Your task to perform on an android device: Open calendar and show me the fourth week of next month Image 0: 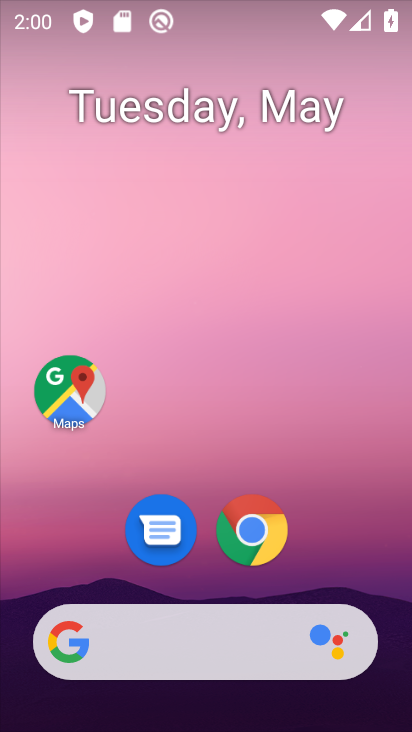
Step 0: drag from (17, 627) to (205, 240)
Your task to perform on an android device: Open calendar and show me the fourth week of next month Image 1: 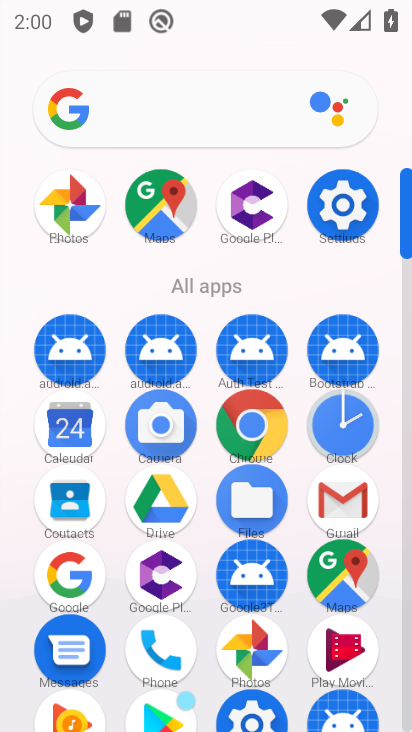
Step 1: click (83, 435)
Your task to perform on an android device: Open calendar and show me the fourth week of next month Image 2: 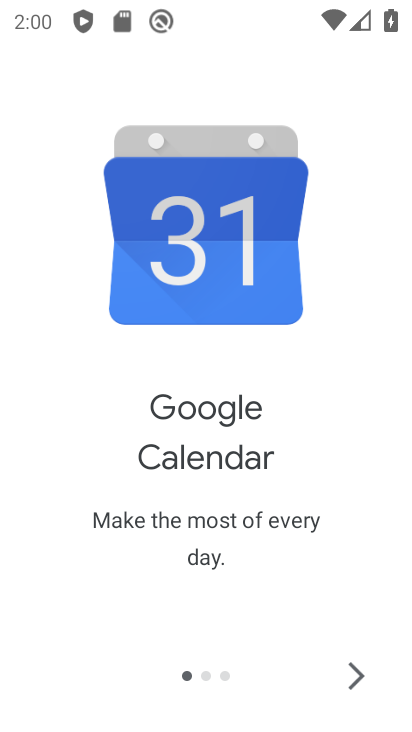
Step 2: click (361, 677)
Your task to perform on an android device: Open calendar and show me the fourth week of next month Image 3: 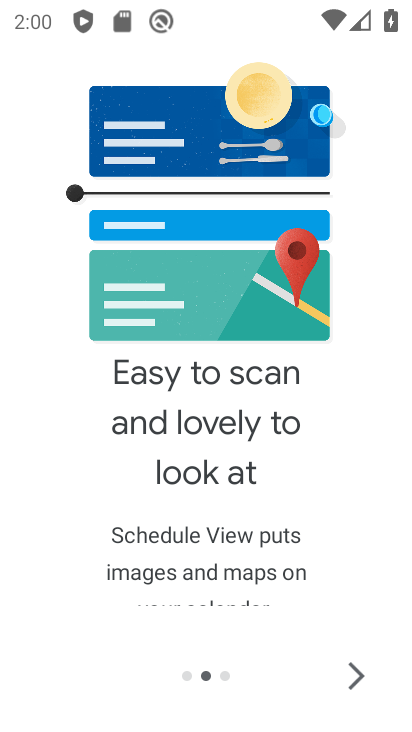
Step 3: click (361, 677)
Your task to perform on an android device: Open calendar and show me the fourth week of next month Image 4: 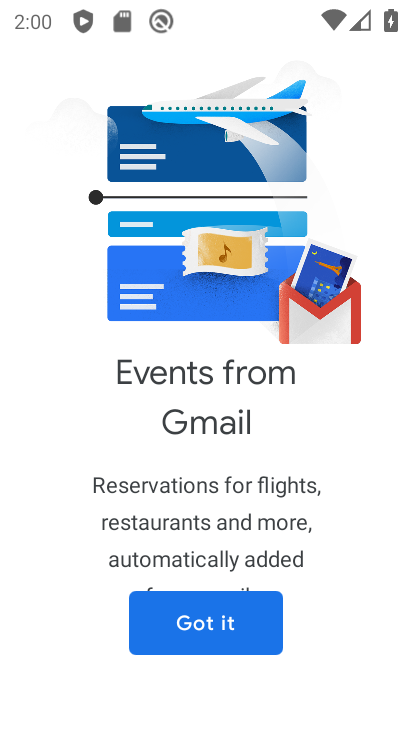
Step 4: click (231, 631)
Your task to perform on an android device: Open calendar and show me the fourth week of next month Image 5: 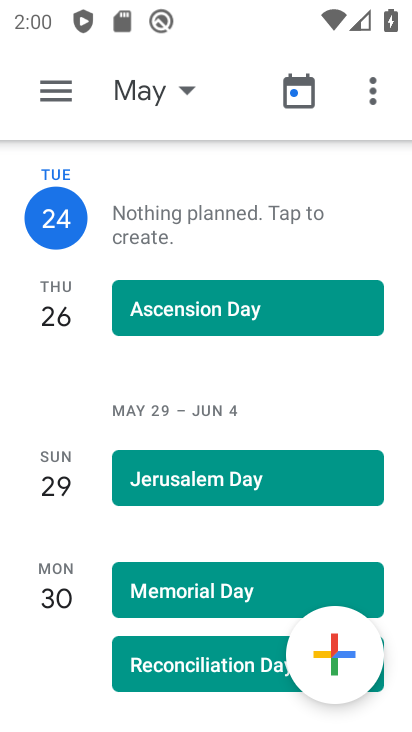
Step 5: click (176, 92)
Your task to perform on an android device: Open calendar and show me the fourth week of next month Image 6: 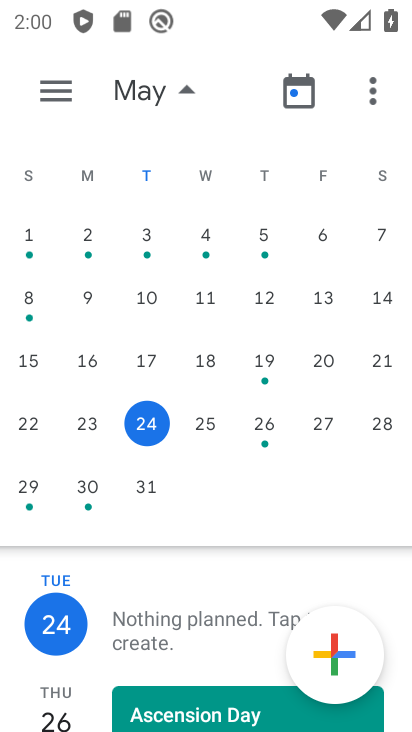
Step 6: drag from (326, 347) to (1, 468)
Your task to perform on an android device: Open calendar and show me the fourth week of next month Image 7: 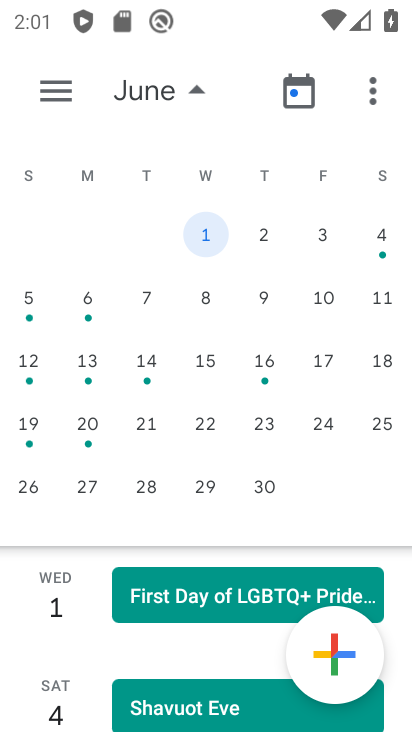
Step 7: click (215, 309)
Your task to perform on an android device: Open calendar and show me the fourth week of next month Image 8: 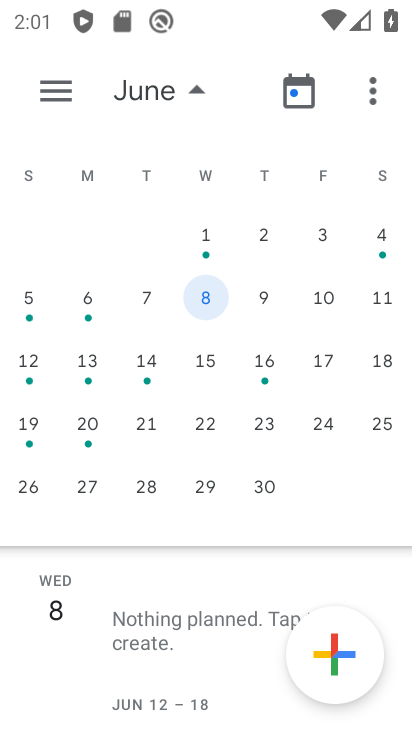
Step 8: click (197, 361)
Your task to perform on an android device: Open calendar and show me the fourth week of next month Image 9: 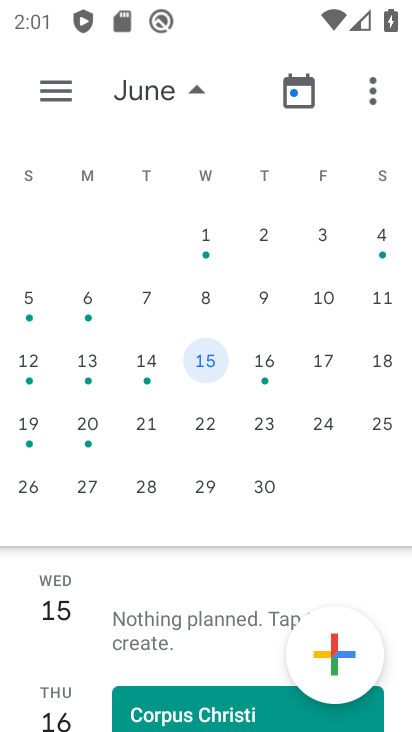
Step 9: click (208, 416)
Your task to perform on an android device: Open calendar and show me the fourth week of next month Image 10: 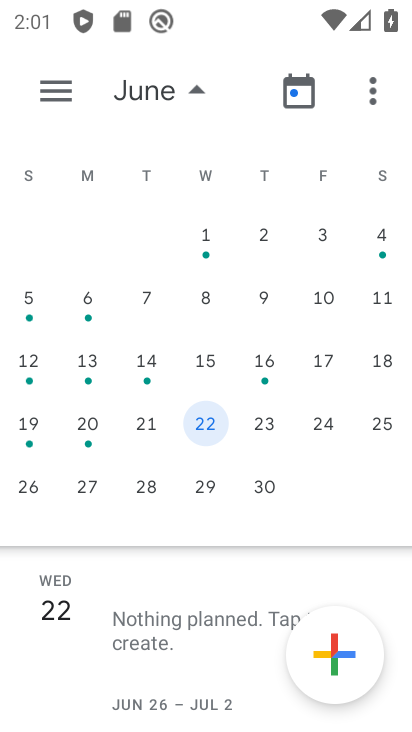
Step 10: click (98, 426)
Your task to perform on an android device: Open calendar and show me the fourth week of next month Image 11: 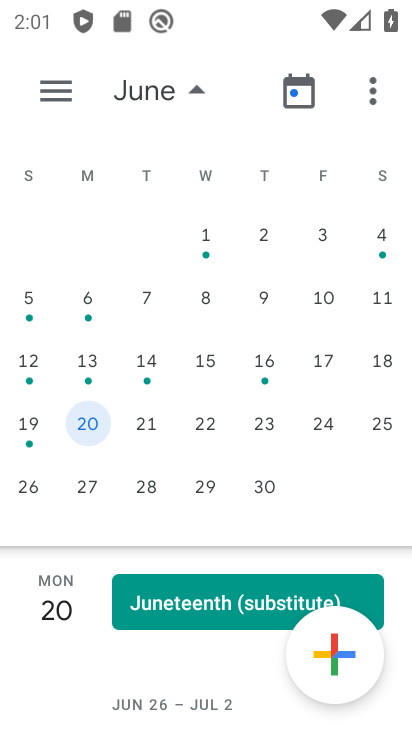
Step 11: click (155, 427)
Your task to perform on an android device: Open calendar and show me the fourth week of next month Image 12: 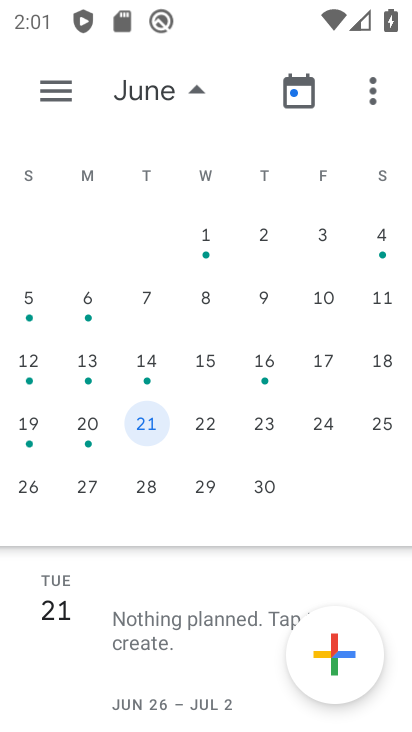
Step 12: click (261, 420)
Your task to perform on an android device: Open calendar and show me the fourth week of next month Image 13: 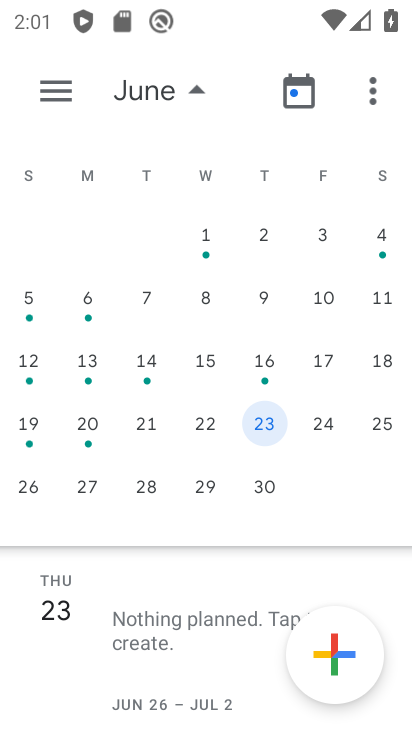
Step 13: click (330, 424)
Your task to perform on an android device: Open calendar and show me the fourth week of next month Image 14: 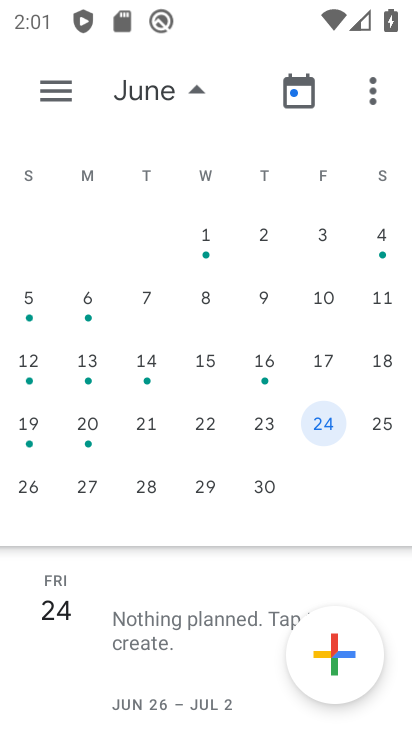
Step 14: task complete